Your task to perform on an android device: Open Wikipedia Image 0: 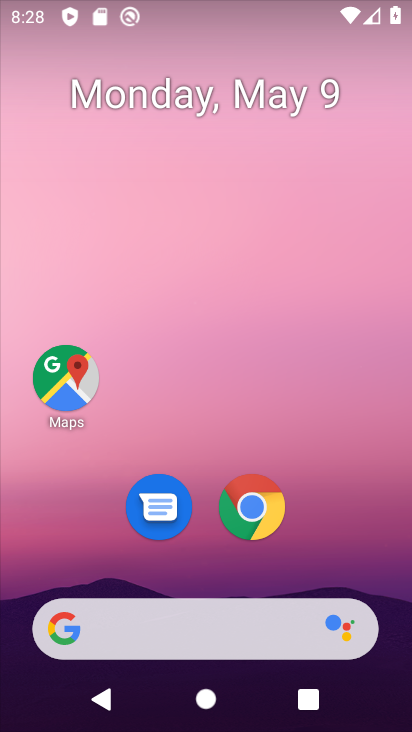
Step 0: click (253, 506)
Your task to perform on an android device: Open Wikipedia Image 1: 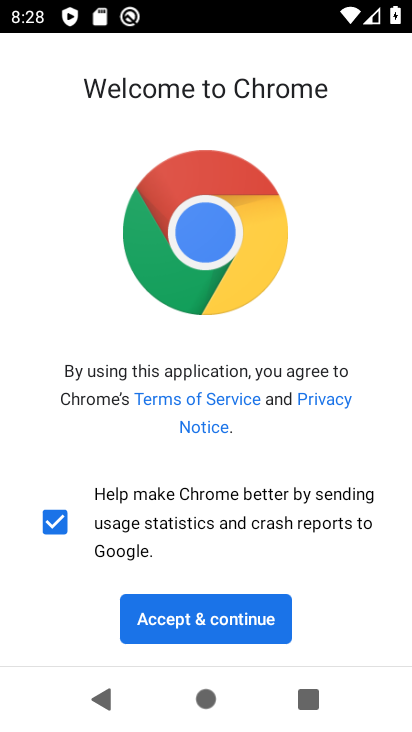
Step 1: click (213, 617)
Your task to perform on an android device: Open Wikipedia Image 2: 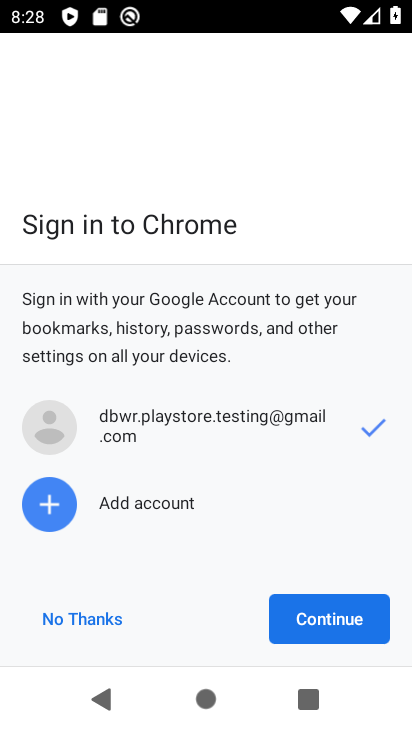
Step 2: click (322, 625)
Your task to perform on an android device: Open Wikipedia Image 3: 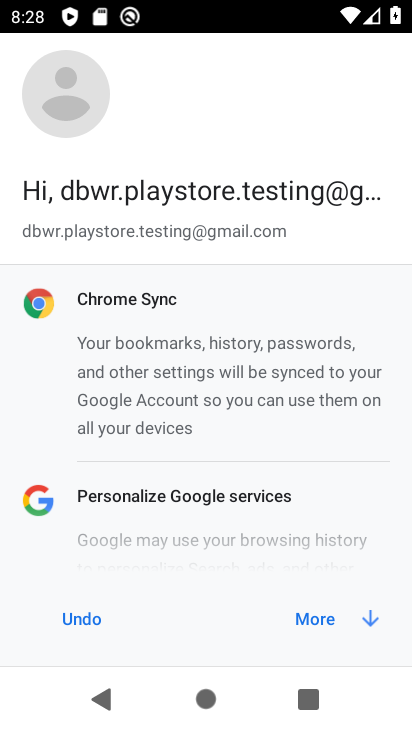
Step 3: click (320, 615)
Your task to perform on an android device: Open Wikipedia Image 4: 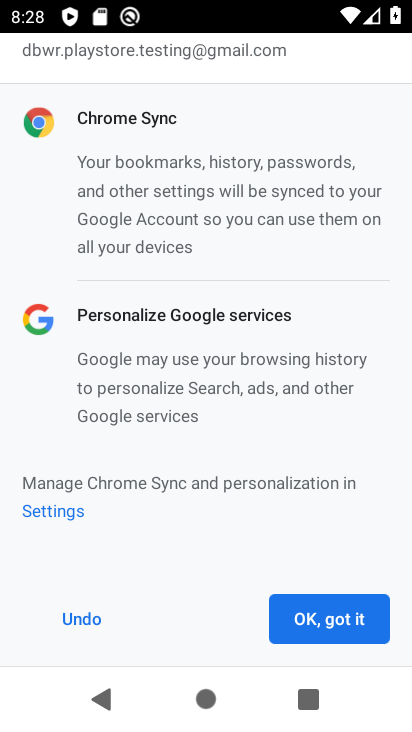
Step 4: click (320, 615)
Your task to perform on an android device: Open Wikipedia Image 5: 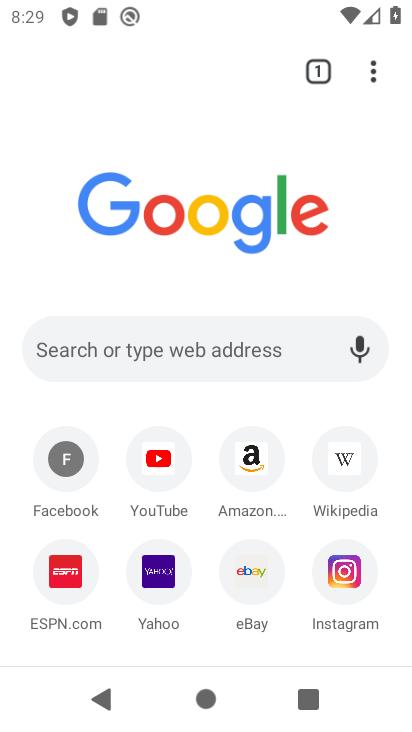
Step 5: click (343, 460)
Your task to perform on an android device: Open Wikipedia Image 6: 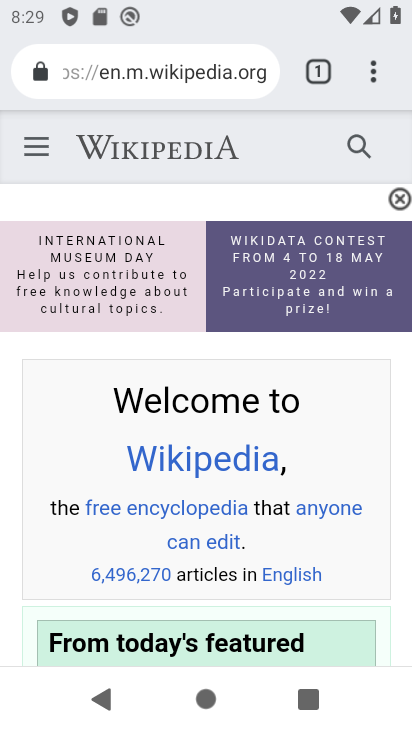
Step 6: task complete